Your task to perform on an android device: Go to Yahoo.com Image 0: 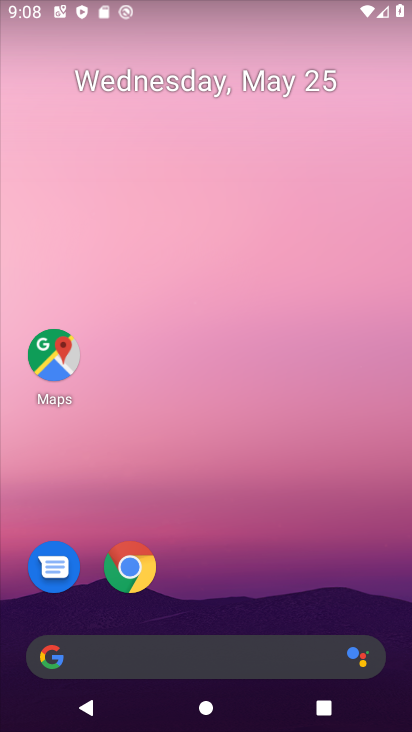
Step 0: click (145, 595)
Your task to perform on an android device: Go to Yahoo.com Image 1: 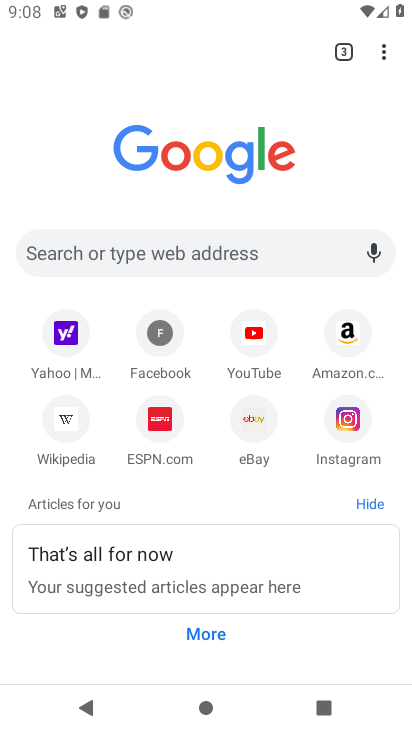
Step 1: click (60, 365)
Your task to perform on an android device: Go to Yahoo.com Image 2: 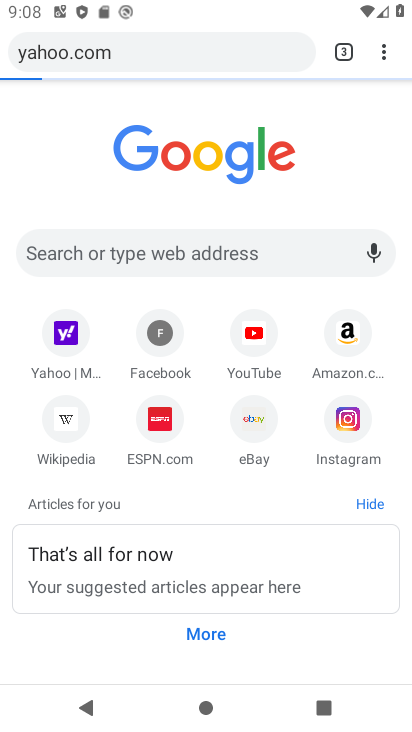
Step 2: task complete